Your task to perform on an android device: How much does a 3 bedroom apartment rent for in Los Angeles? Image 0: 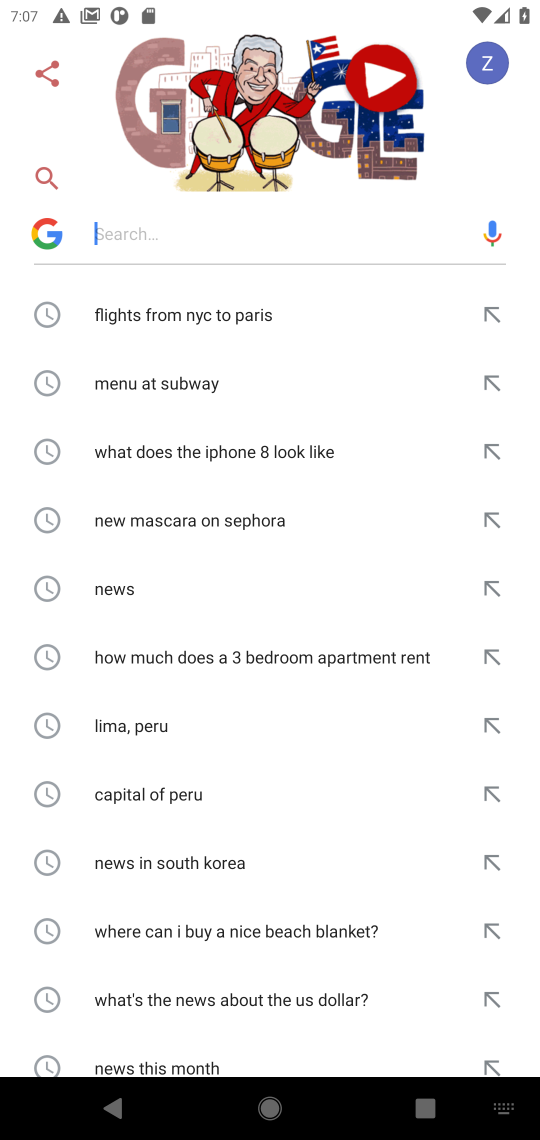
Step 0: press home button
Your task to perform on an android device: How much does a 3 bedroom apartment rent for in Los Angeles? Image 1: 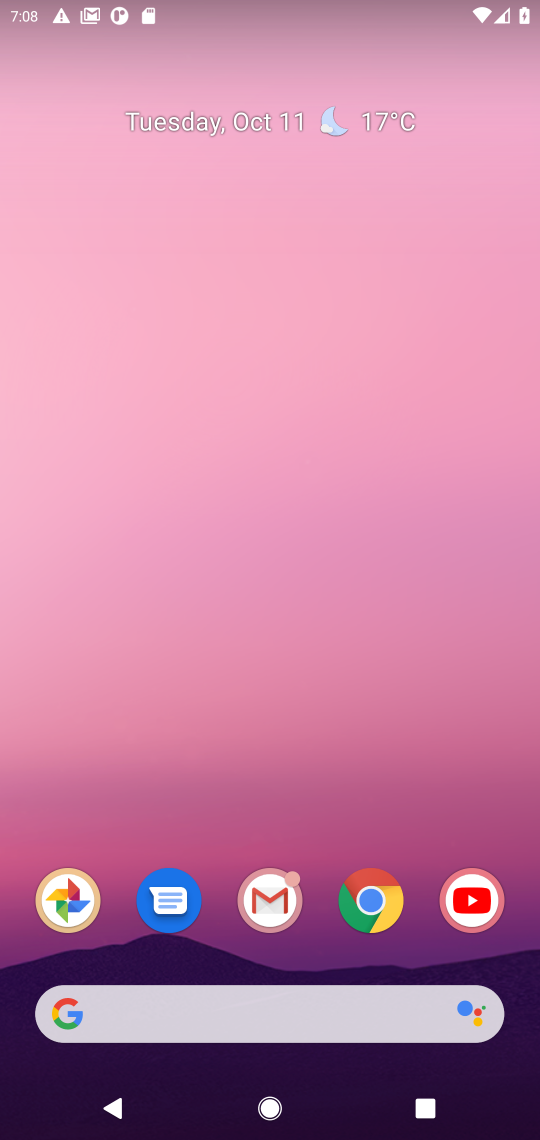
Step 1: click (364, 894)
Your task to perform on an android device: How much does a 3 bedroom apartment rent for in Los Angeles? Image 2: 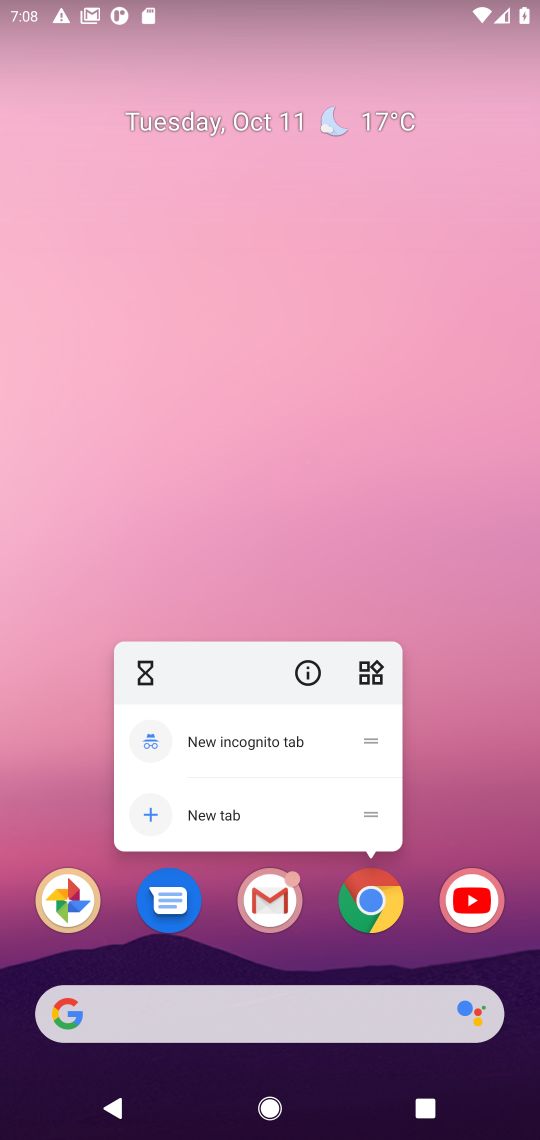
Step 2: click (364, 894)
Your task to perform on an android device: How much does a 3 bedroom apartment rent for in Los Angeles? Image 3: 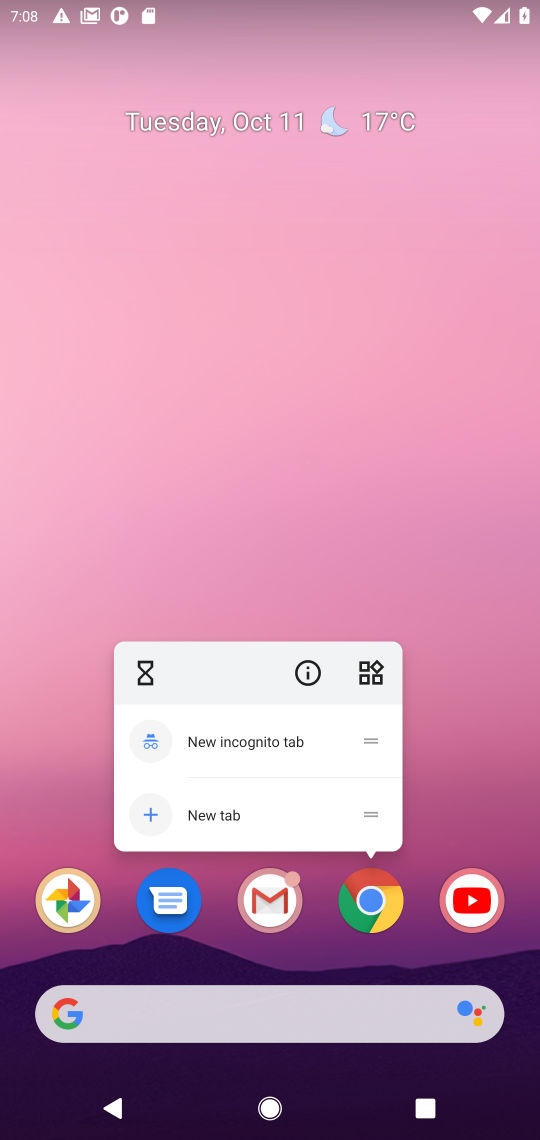
Step 3: click (372, 899)
Your task to perform on an android device: How much does a 3 bedroom apartment rent for in Los Angeles? Image 4: 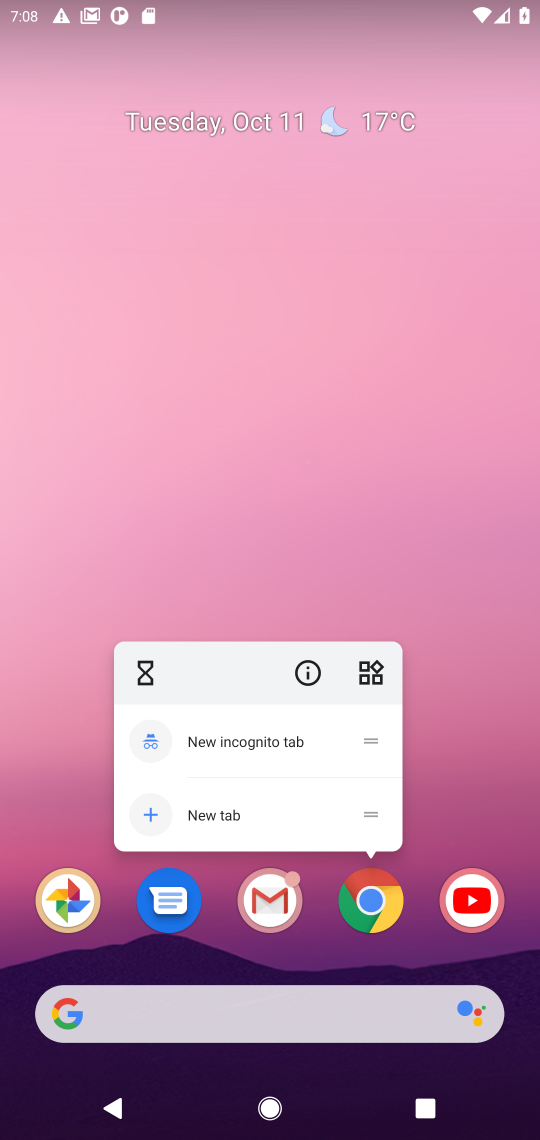
Step 4: click (372, 912)
Your task to perform on an android device: How much does a 3 bedroom apartment rent for in Los Angeles? Image 5: 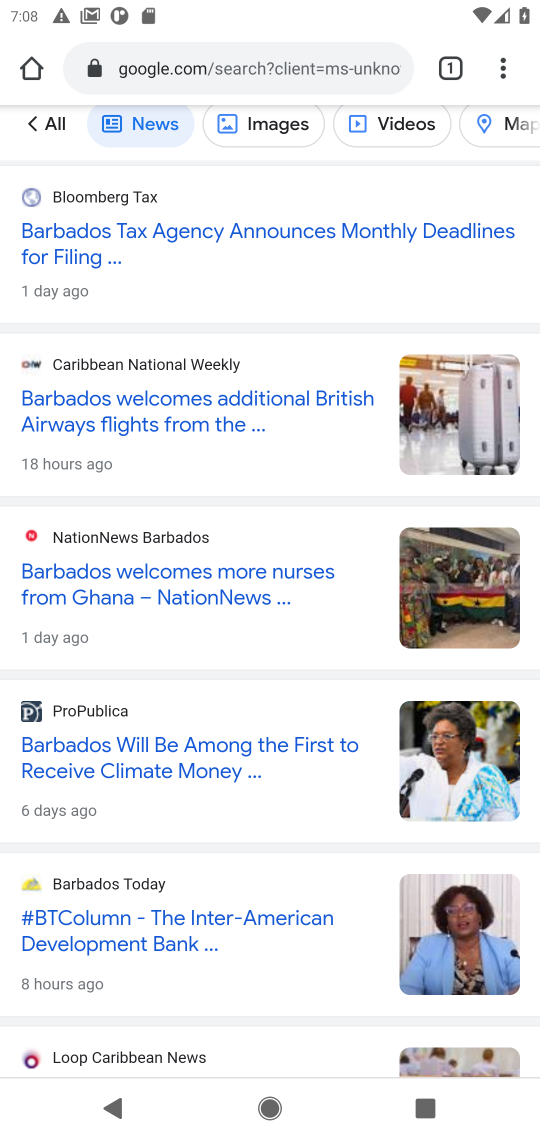
Step 5: click (323, 62)
Your task to perform on an android device: How much does a 3 bedroom apartment rent for in Los Angeles? Image 6: 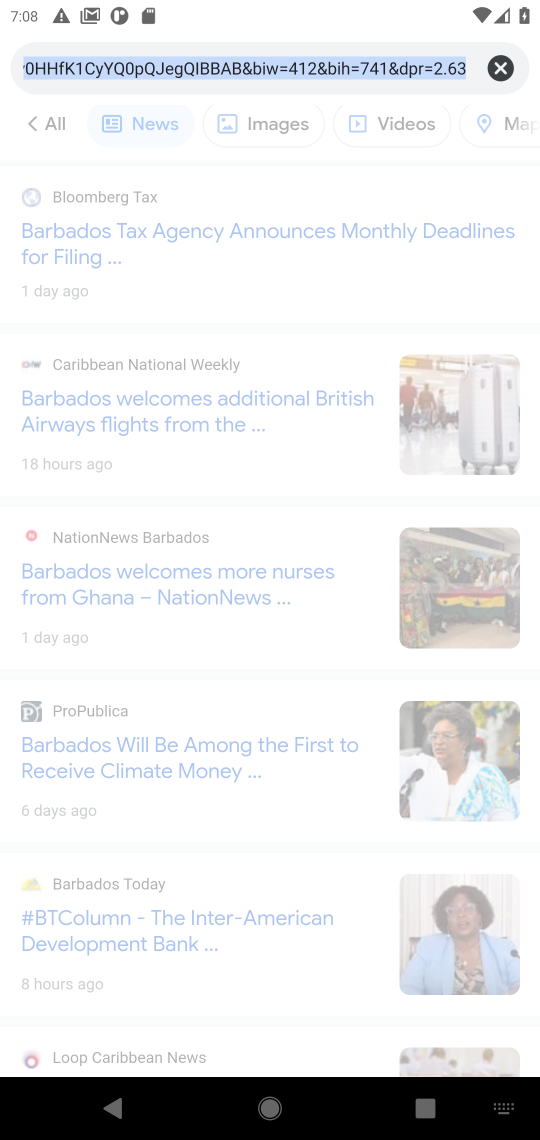
Step 6: click (497, 55)
Your task to perform on an android device: How much does a 3 bedroom apartment rent for in Los Angeles? Image 7: 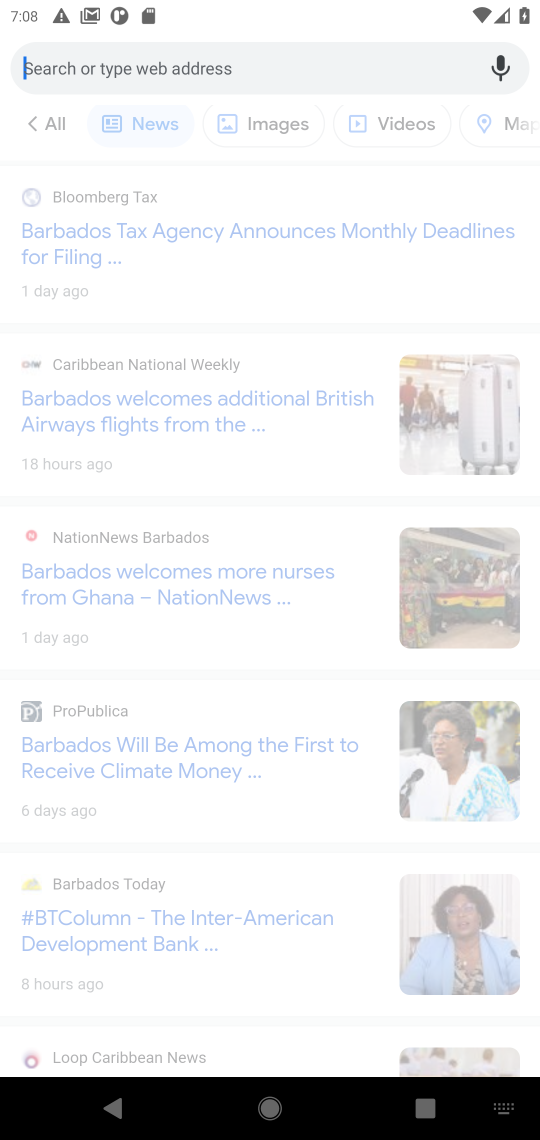
Step 7: press enter
Your task to perform on an android device: How much does a 3 bedroom apartment rent for in Los Angeles? Image 8: 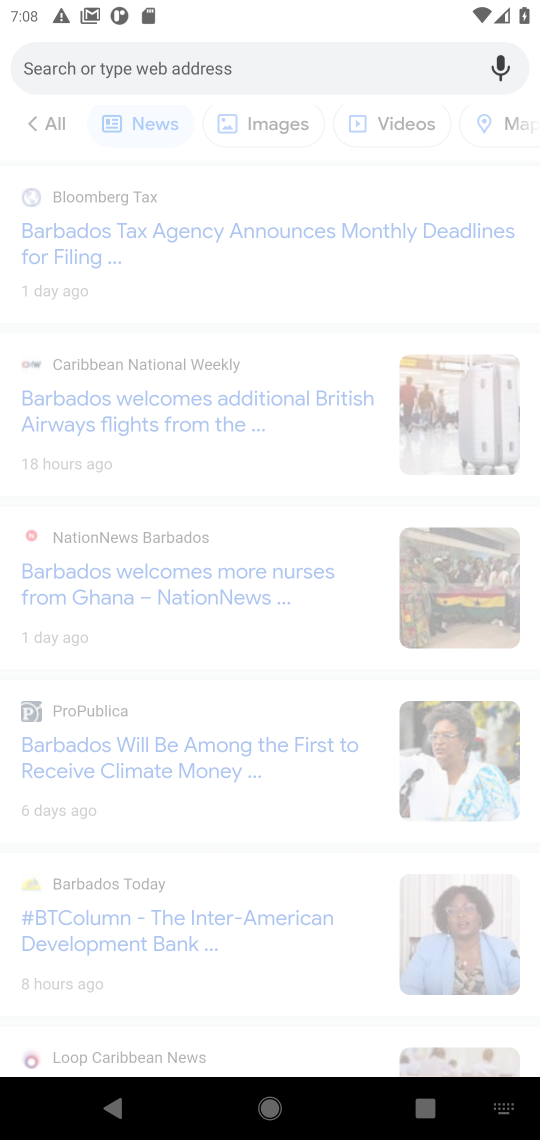
Step 8: type "3 bedroom apartment rent for in Los Angeles"
Your task to perform on an android device: How much does a 3 bedroom apartment rent for in Los Angeles? Image 9: 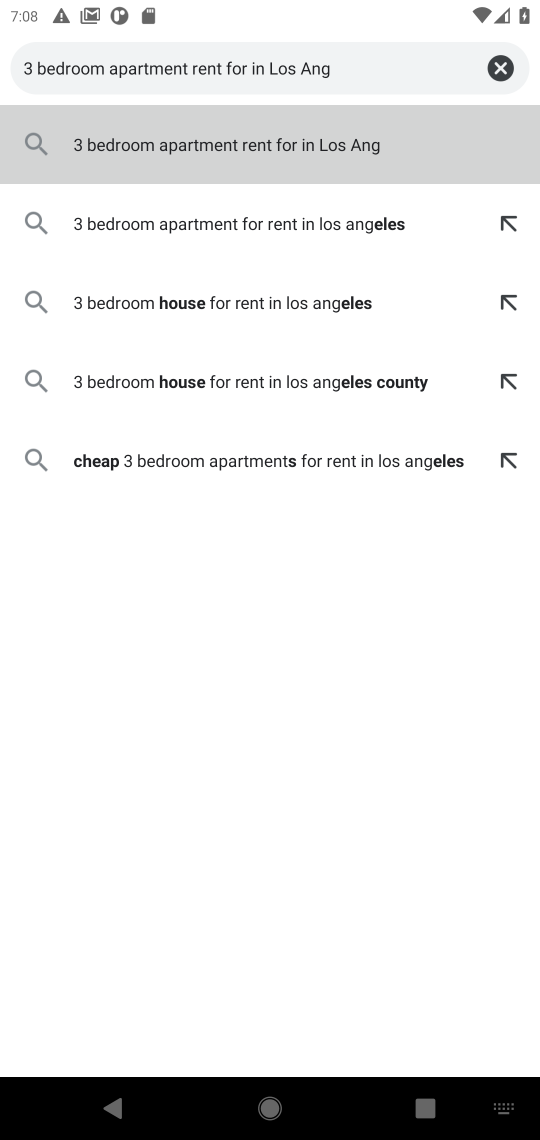
Step 9: click (367, 220)
Your task to perform on an android device: How much does a 3 bedroom apartment rent for in Los Angeles? Image 10: 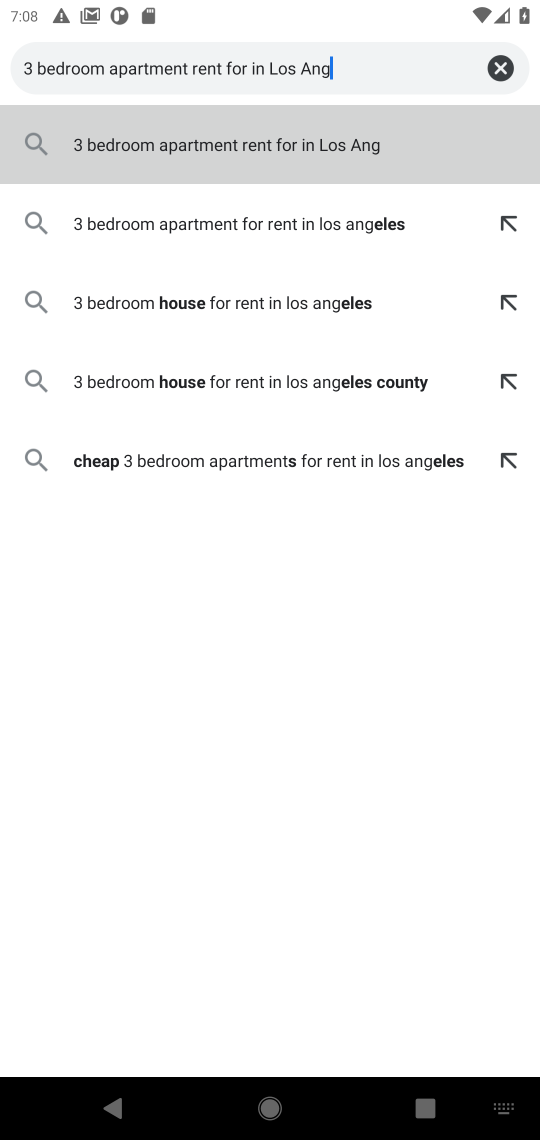
Step 10: click (367, 226)
Your task to perform on an android device: How much does a 3 bedroom apartment rent for in Los Angeles? Image 11: 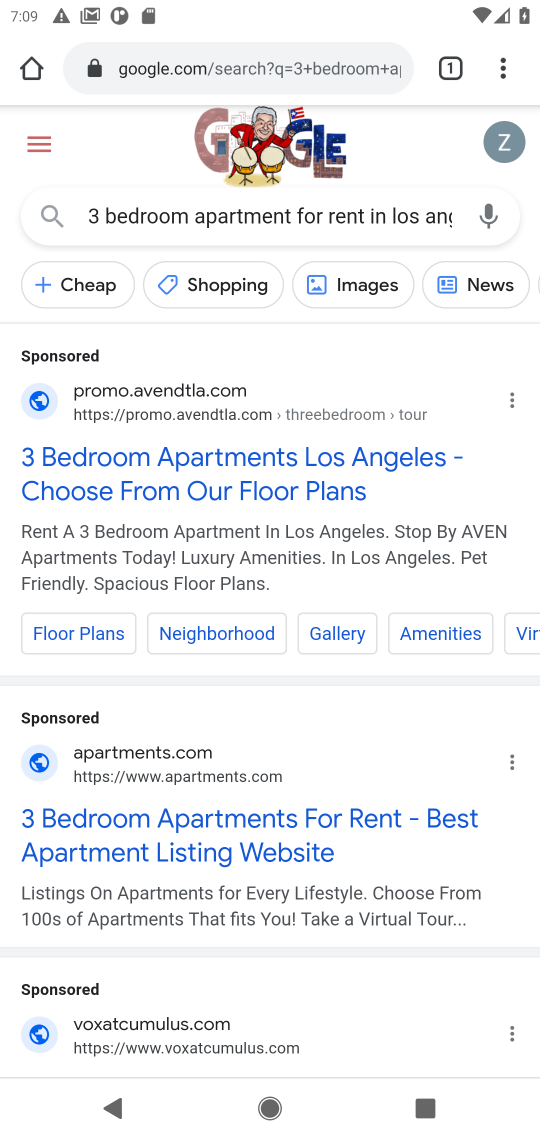
Step 11: drag from (256, 920) to (266, 544)
Your task to perform on an android device: How much does a 3 bedroom apartment rent for in Los Angeles? Image 12: 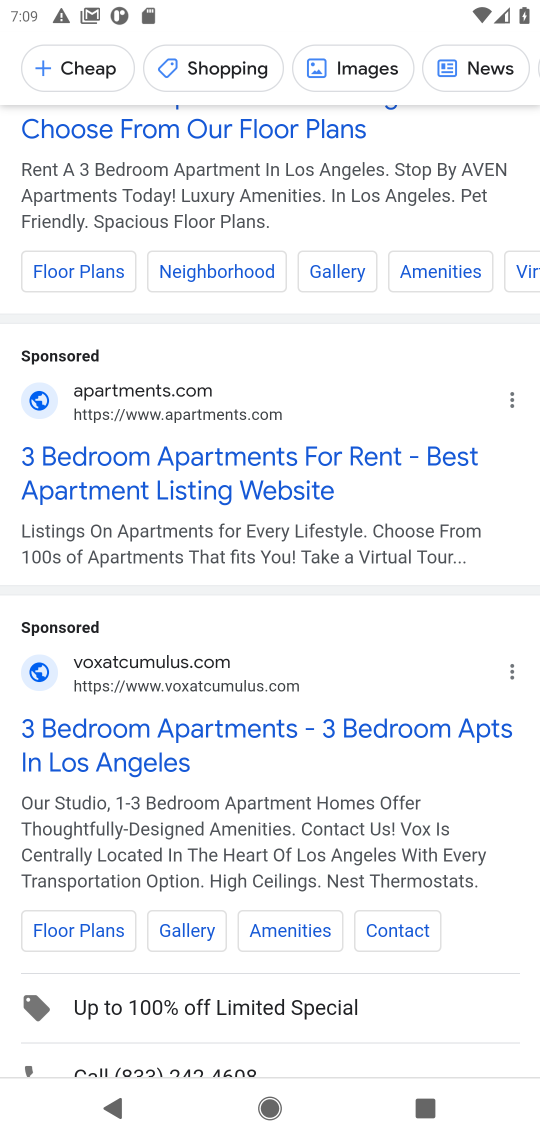
Step 12: drag from (298, 862) to (325, 441)
Your task to perform on an android device: How much does a 3 bedroom apartment rent for in Los Angeles? Image 13: 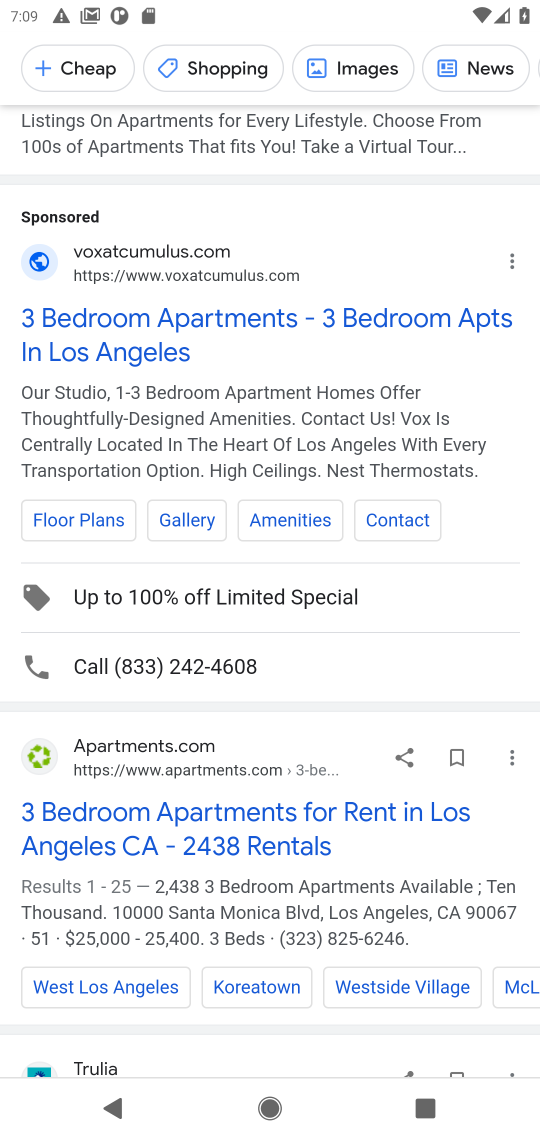
Step 13: click (190, 806)
Your task to perform on an android device: How much does a 3 bedroom apartment rent for in Los Angeles? Image 14: 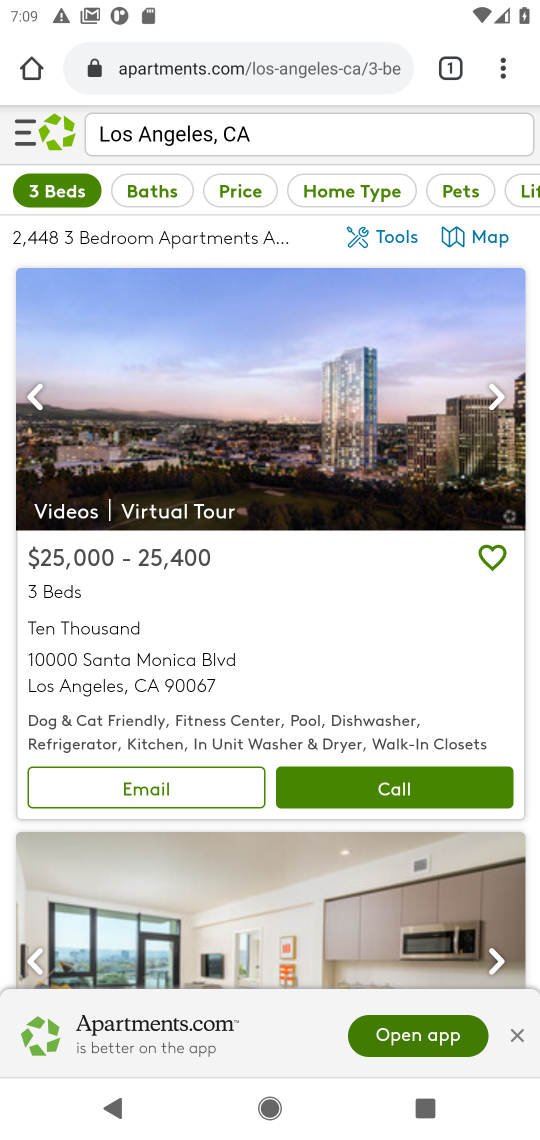
Step 14: task complete